Your task to perform on an android device: Show me the alarms in the clock app Image 0: 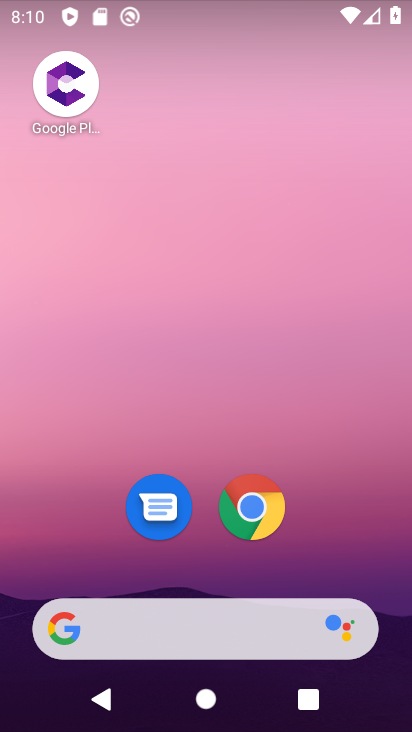
Step 0: drag from (219, 535) to (293, 92)
Your task to perform on an android device: Show me the alarms in the clock app Image 1: 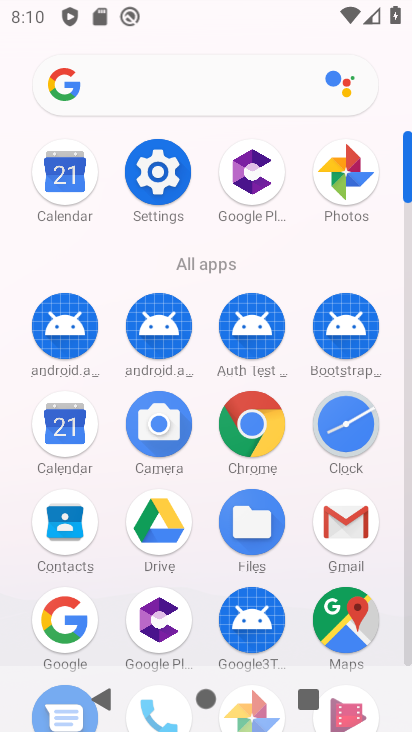
Step 1: click (358, 419)
Your task to perform on an android device: Show me the alarms in the clock app Image 2: 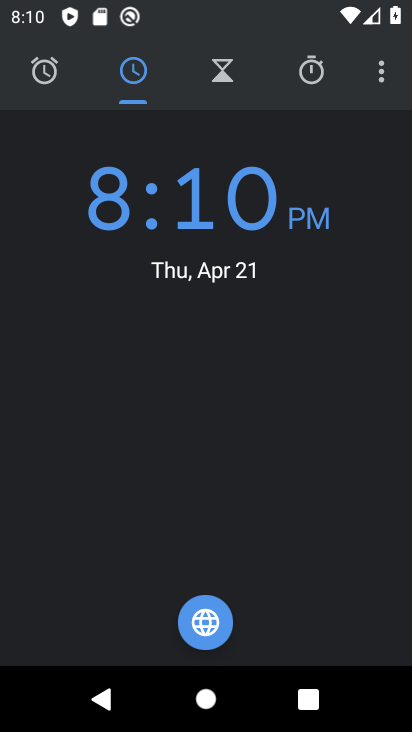
Step 2: click (378, 65)
Your task to perform on an android device: Show me the alarms in the clock app Image 3: 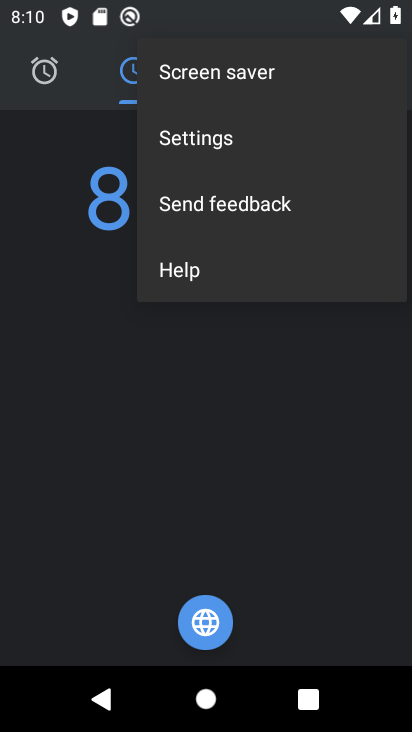
Step 3: click (204, 441)
Your task to perform on an android device: Show me the alarms in the clock app Image 4: 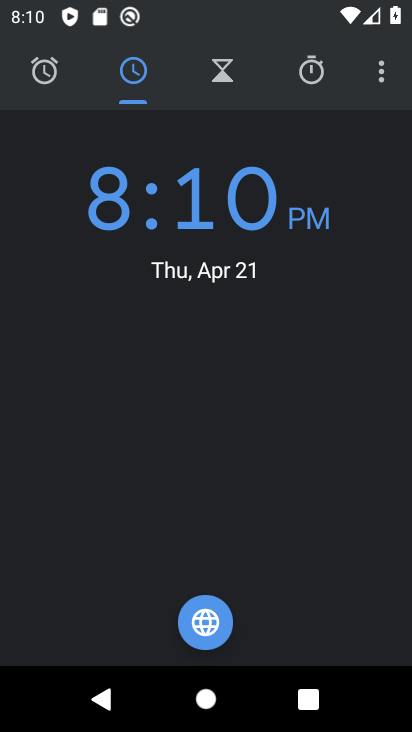
Step 4: click (49, 63)
Your task to perform on an android device: Show me the alarms in the clock app Image 5: 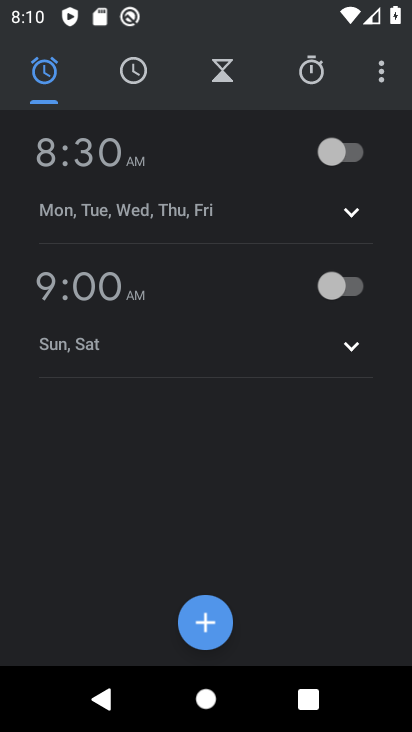
Step 5: task complete